Your task to perform on an android device: Open Yahoo.com Image 0: 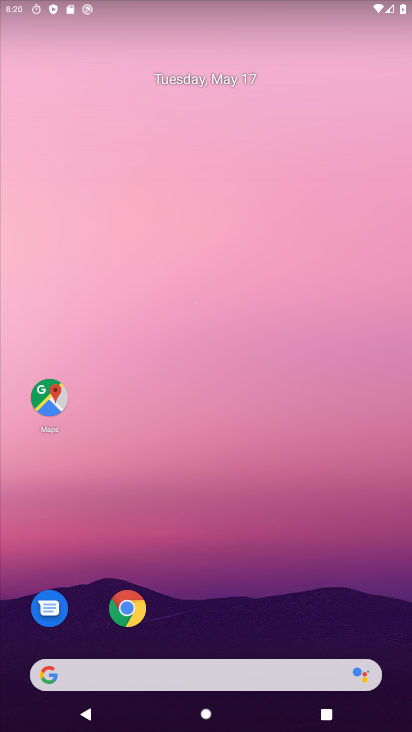
Step 0: drag from (334, 509) to (296, 185)
Your task to perform on an android device: Open Yahoo.com Image 1: 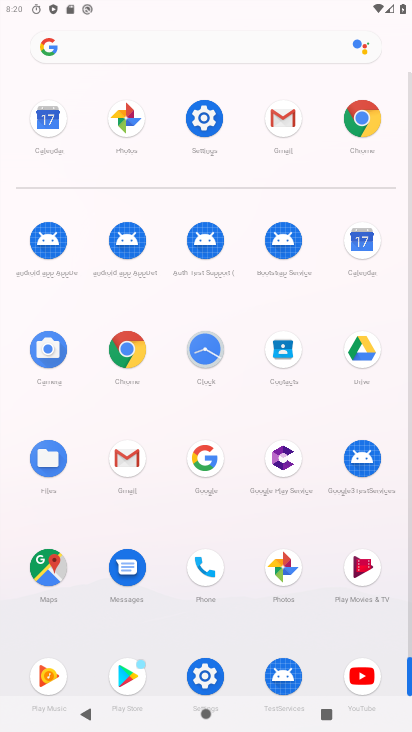
Step 1: click (121, 382)
Your task to perform on an android device: Open Yahoo.com Image 2: 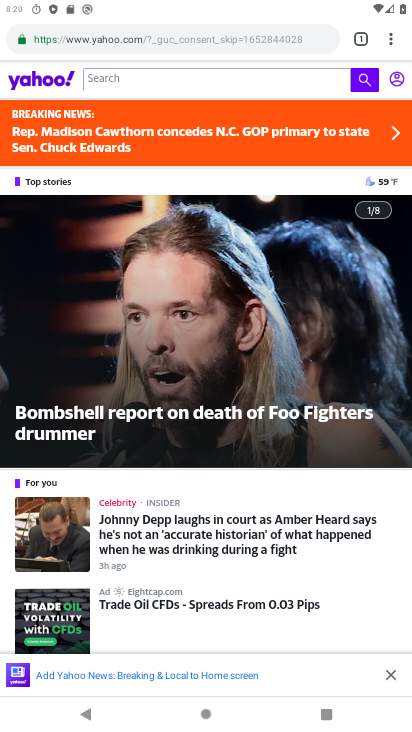
Step 2: task complete